Your task to perform on an android device: turn on translation in the chrome app Image 0: 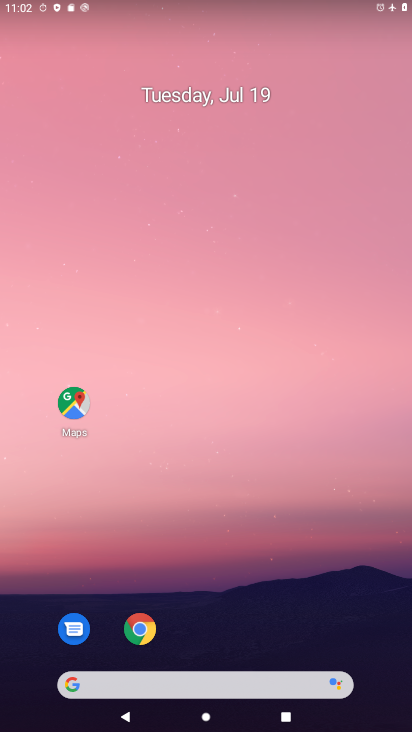
Step 0: drag from (245, 537) to (167, 181)
Your task to perform on an android device: turn on translation in the chrome app Image 1: 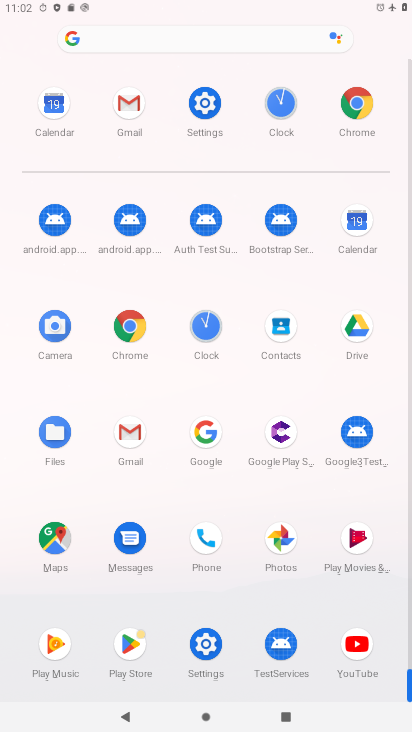
Step 1: click (357, 100)
Your task to perform on an android device: turn on translation in the chrome app Image 2: 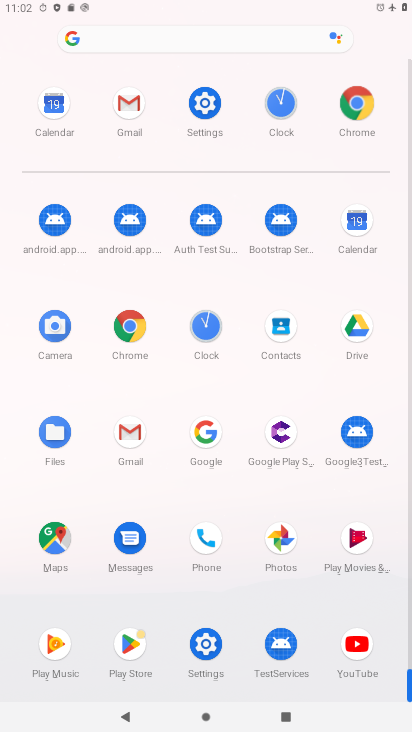
Step 2: click (358, 100)
Your task to perform on an android device: turn on translation in the chrome app Image 3: 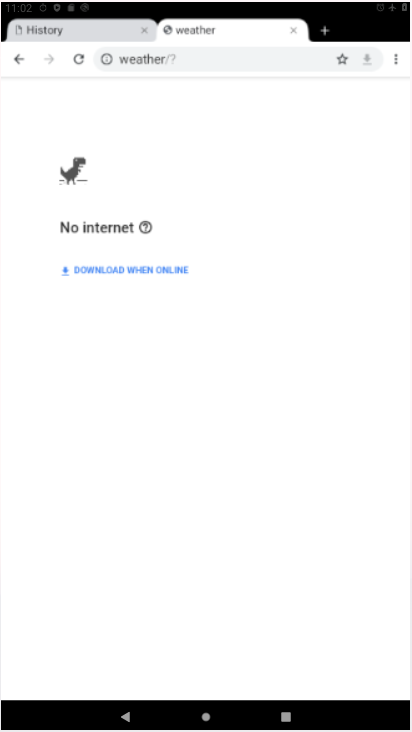
Step 3: click (360, 103)
Your task to perform on an android device: turn on translation in the chrome app Image 4: 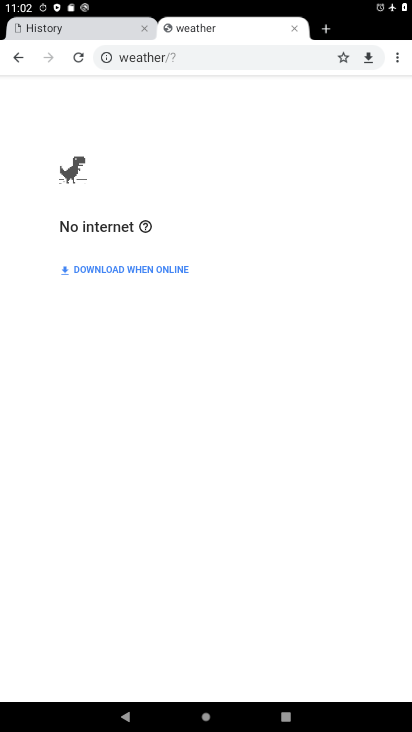
Step 4: drag from (395, 49) to (281, 348)
Your task to perform on an android device: turn on translation in the chrome app Image 5: 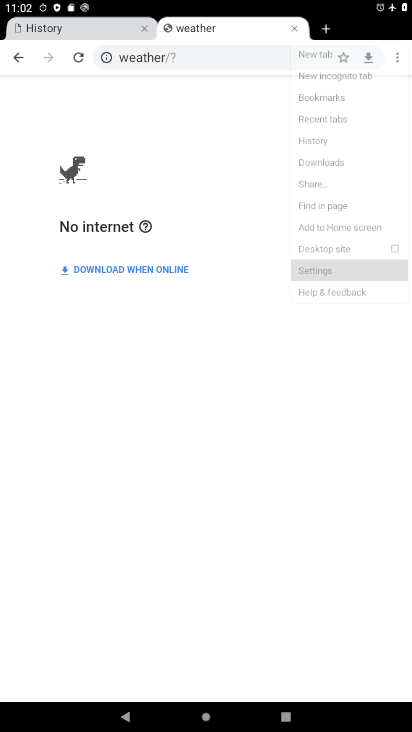
Step 5: click (282, 349)
Your task to perform on an android device: turn on translation in the chrome app Image 6: 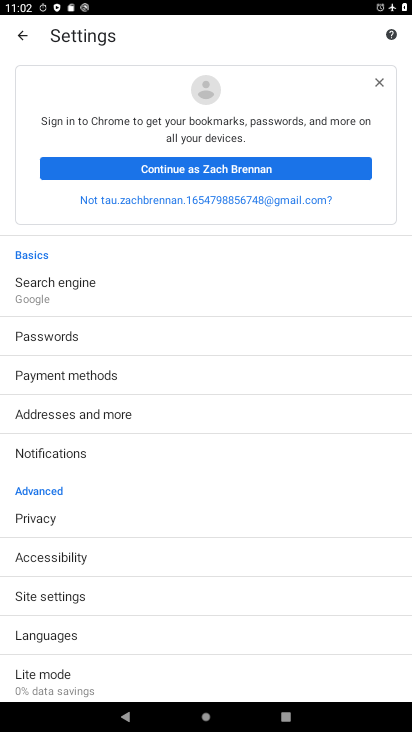
Step 6: drag from (40, 481) to (38, 239)
Your task to perform on an android device: turn on translation in the chrome app Image 7: 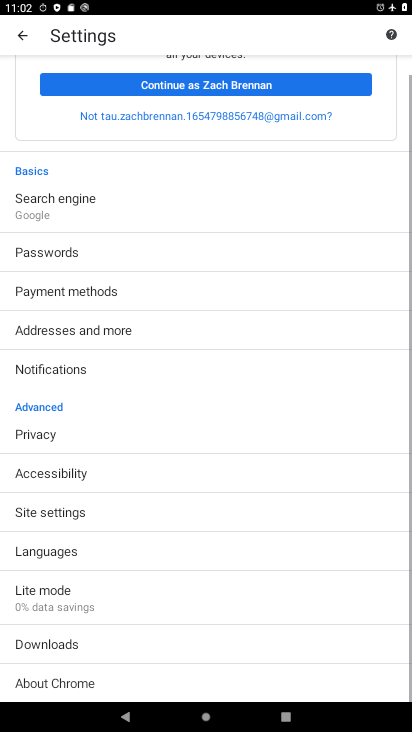
Step 7: drag from (76, 470) to (78, 369)
Your task to perform on an android device: turn on translation in the chrome app Image 8: 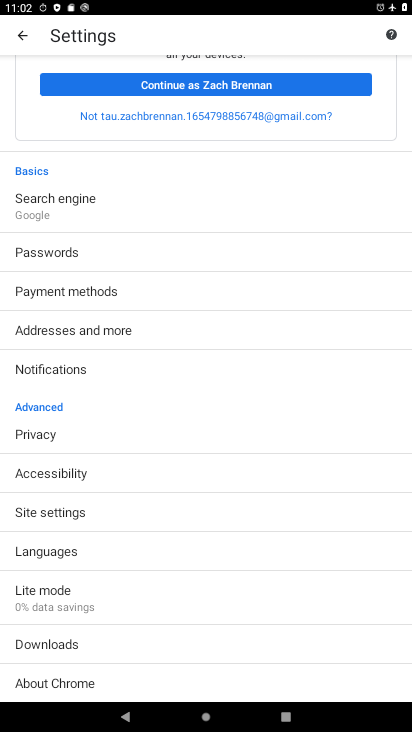
Step 8: drag from (113, 497) to (77, 233)
Your task to perform on an android device: turn on translation in the chrome app Image 9: 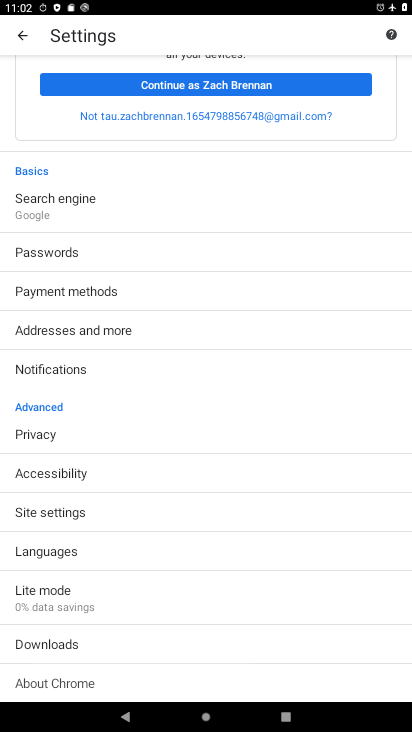
Step 9: drag from (73, 385) to (73, 210)
Your task to perform on an android device: turn on translation in the chrome app Image 10: 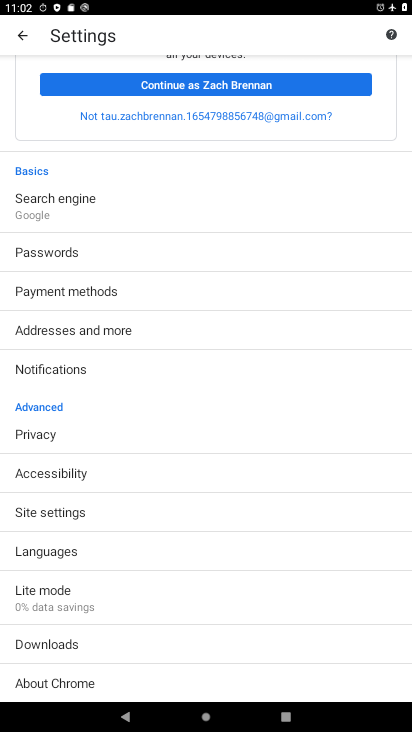
Step 10: click (91, 545)
Your task to perform on an android device: turn on translation in the chrome app Image 11: 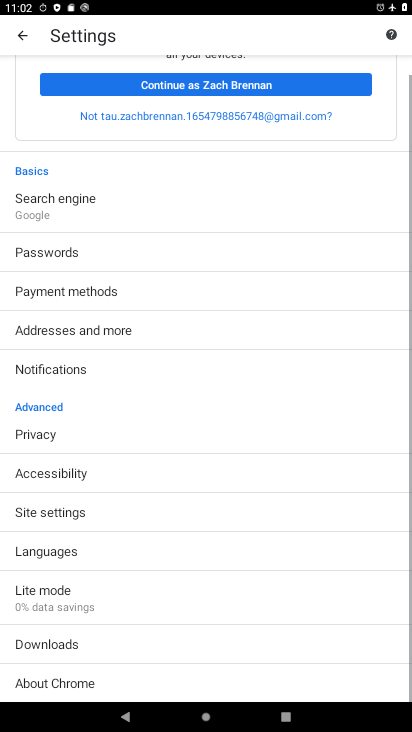
Step 11: click (97, 542)
Your task to perform on an android device: turn on translation in the chrome app Image 12: 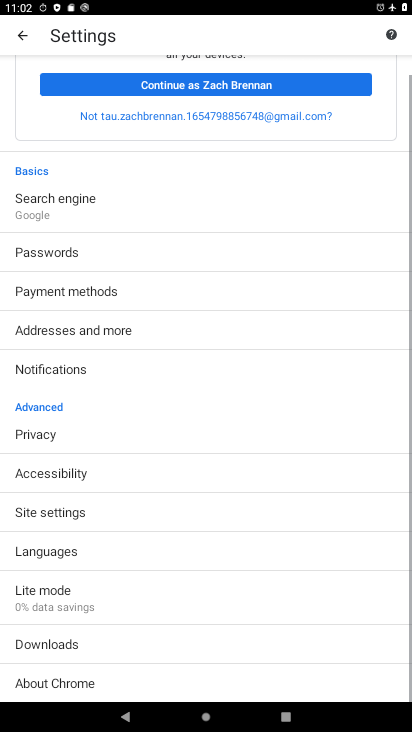
Step 12: click (98, 541)
Your task to perform on an android device: turn on translation in the chrome app Image 13: 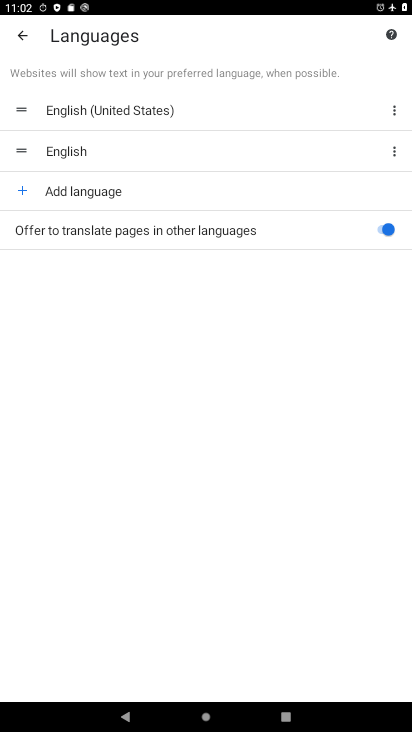
Step 13: task complete